Your task to perform on an android device: Open the Play Movies app and select the watchlist tab. Image 0: 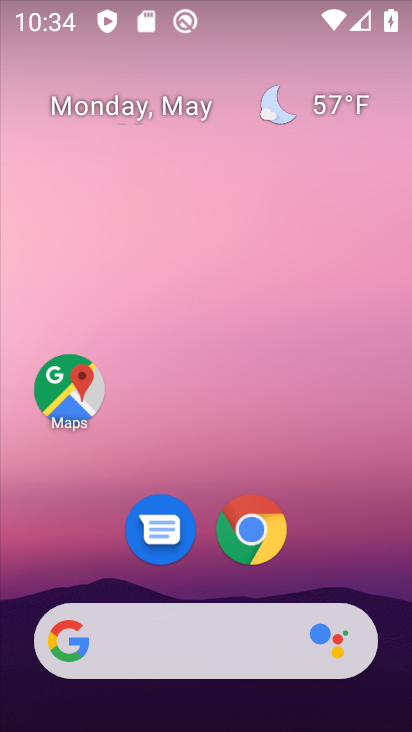
Step 0: drag from (202, 730) to (204, 36)
Your task to perform on an android device: Open the Play Movies app and select the watchlist tab. Image 1: 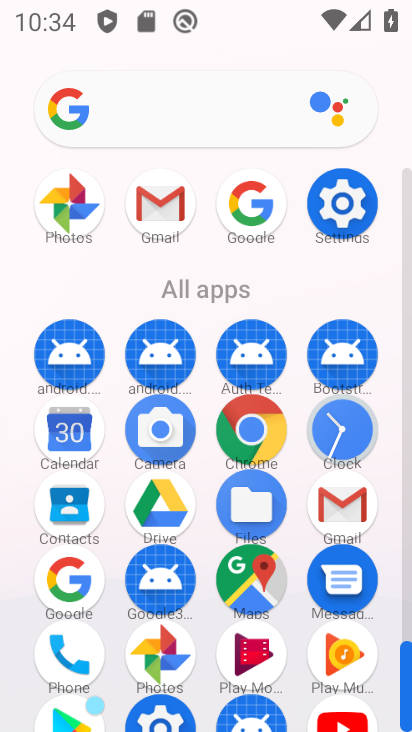
Step 1: click (244, 652)
Your task to perform on an android device: Open the Play Movies app and select the watchlist tab. Image 2: 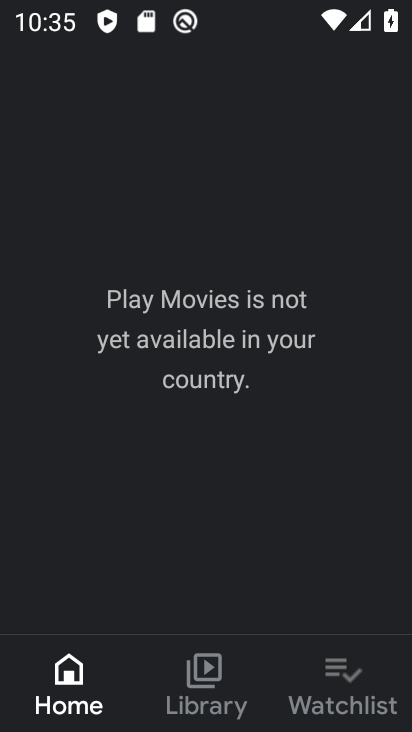
Step 2: click (342, 678)
Your task to perform on an android device: Open the Play Movies app and select the watchlist tab. Image 3: 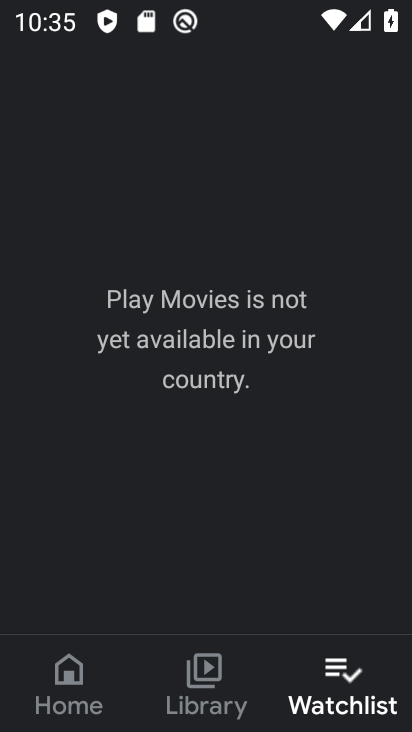
Step 3: task complete